Your task to perform on an android device: turn off priority inbox in the gmail app Image 0: 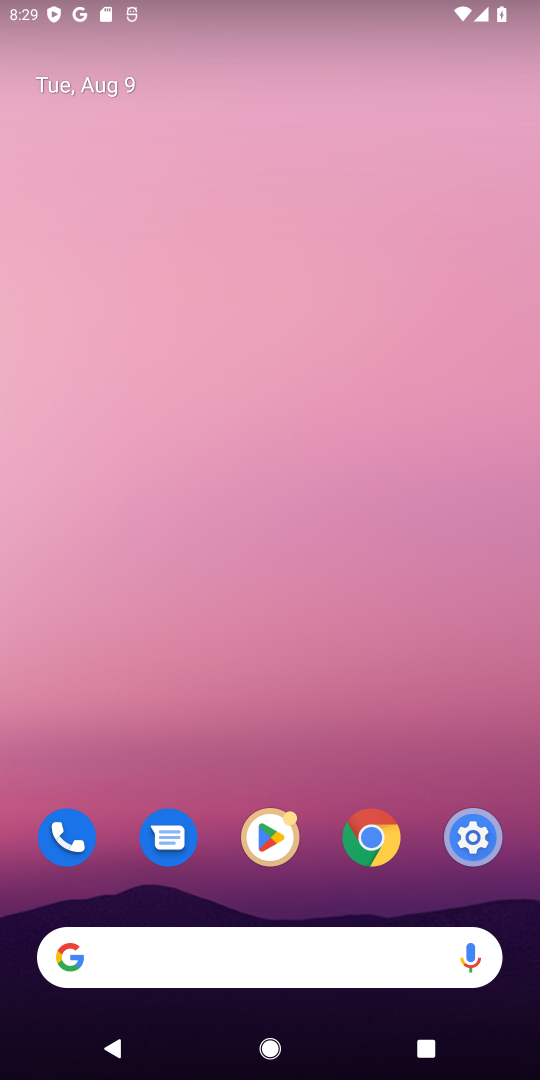
Step 0: drag from (294, 863) to (294, 346)
Your task to perform on an android device: turn off priority inbox in the gmail app Image 1: 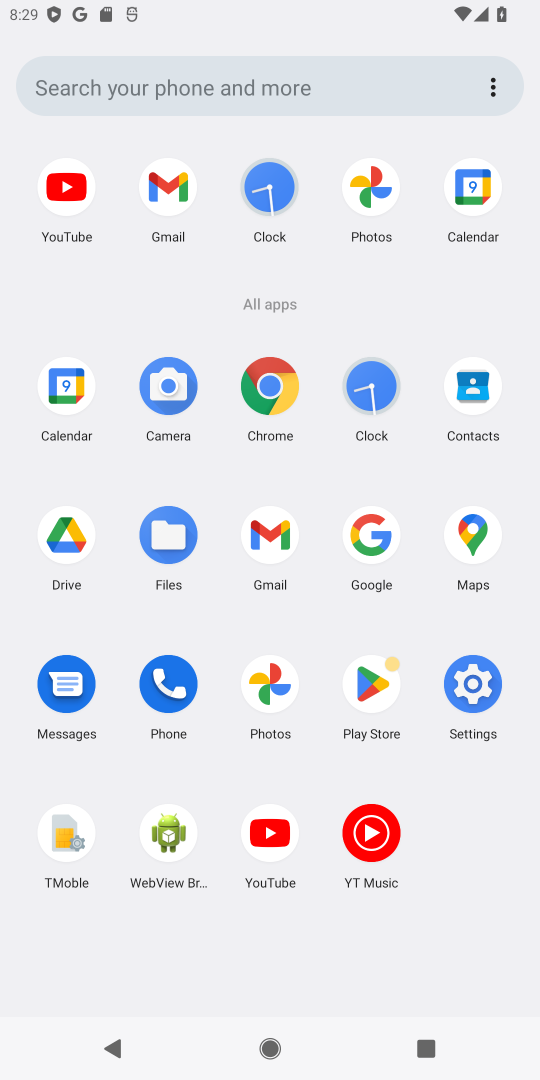
Step 1: click (265, 528)
Your task to perform on an android device: turn off priority inbox in the gmail app Image 2: 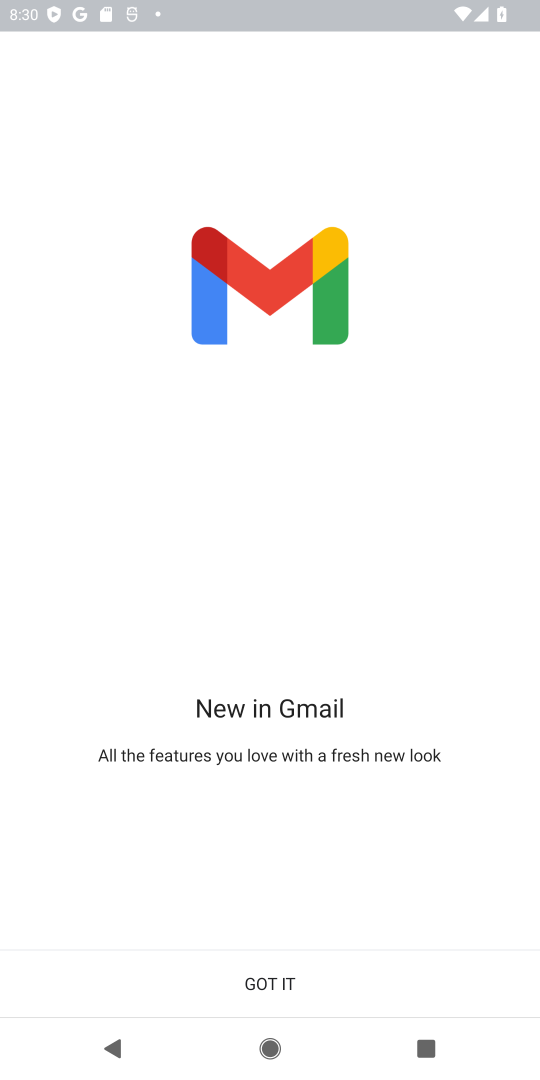
Step 2: click (270, 980)
Your task to perform on an android device: turn off priority inbox in the gmail app Image 3: 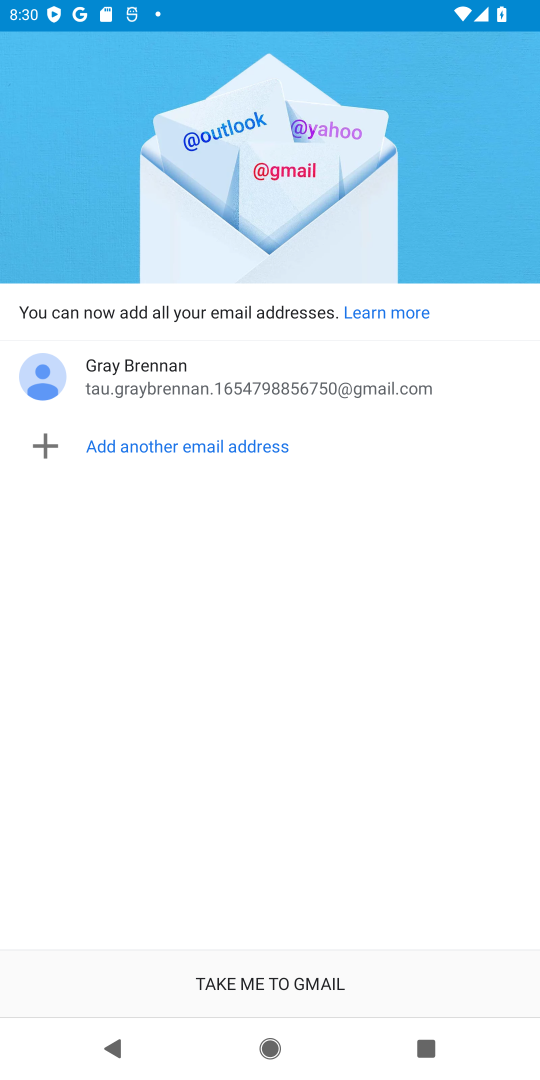
Step 3: click (270, 982)
Your task to perform on an android device: turn off priority inbox in the gmail app Image 4: 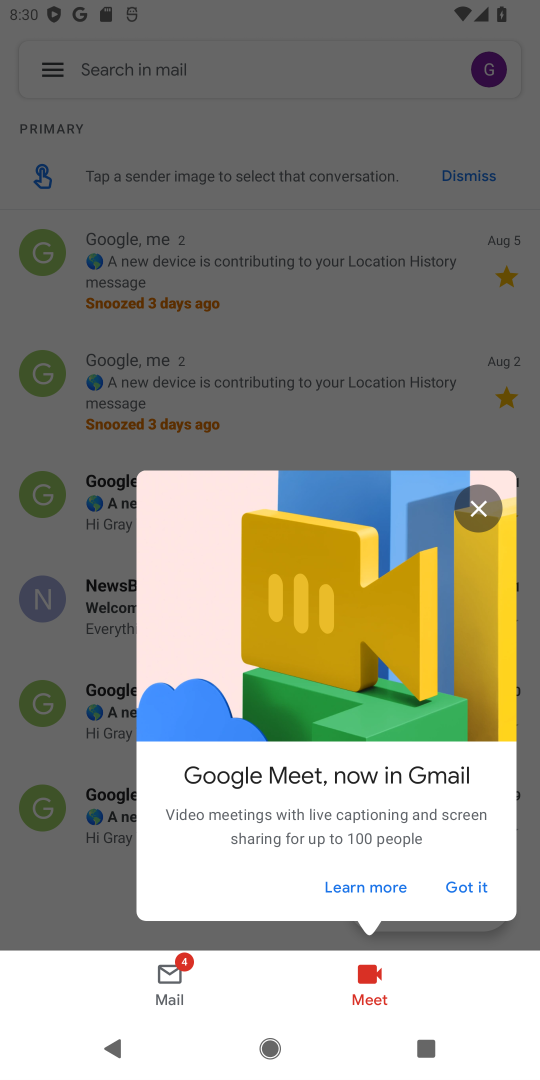
Step 4: click (475, 877)
Your task to perform on an android device: turn off priority inbox in the gmail app Image 5: 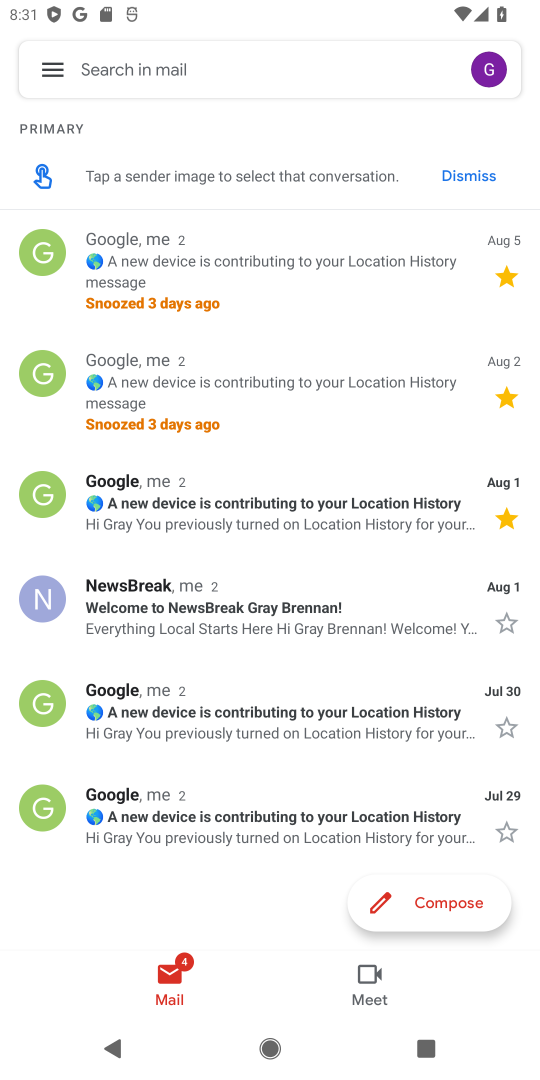
Step 5: click (45, 66)
Your task to perform on an android device: turn off priority inbox in the gmail app Image 6: 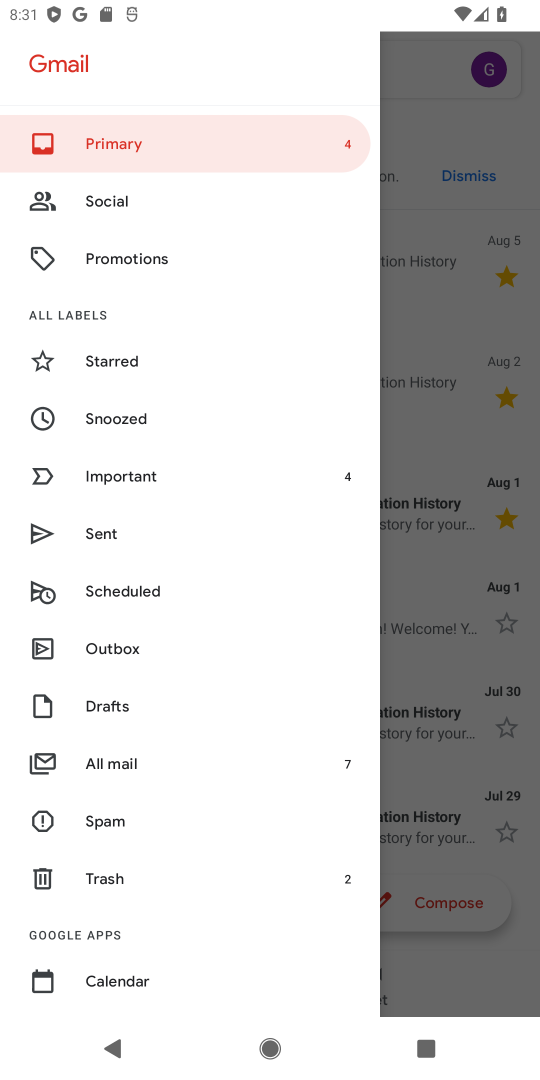
Step 6: drag from (116, 889) to (166, 460)
Your task to perform on an android device: turn off priority inbox in the gmail app Image 7: 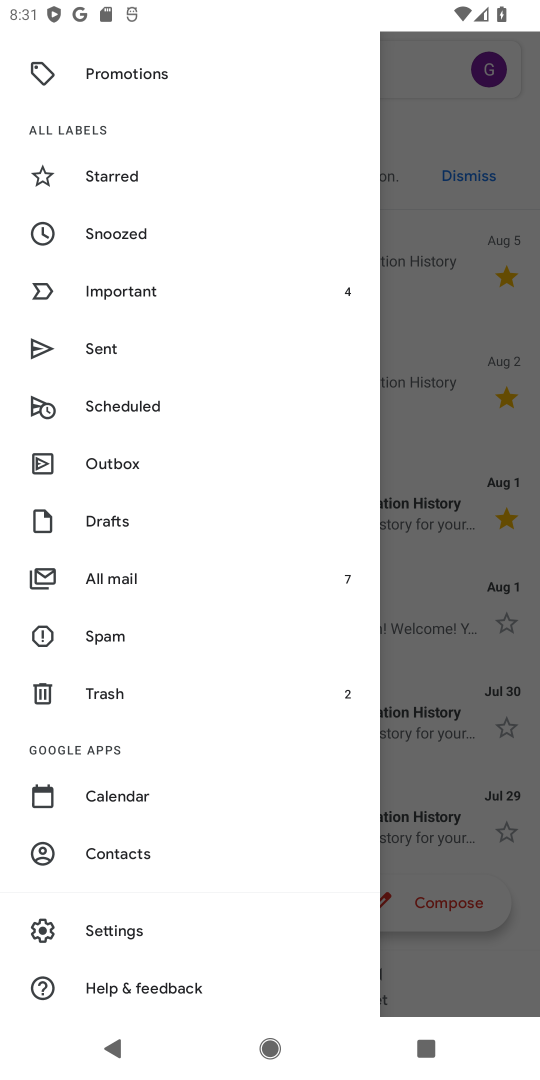
Step 7: click (129, 923)
Your task to perform on an android device: turn off priority inbox in the gmail app Image 8: 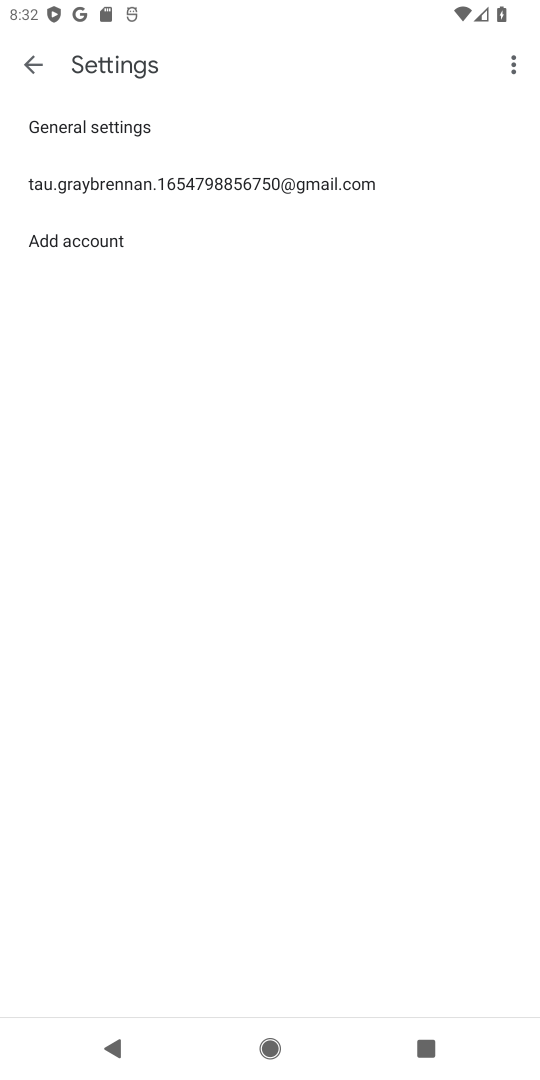
Step 8: click (100, 189)
Your task to perform on an android device: turn off priority inbox in the gmail app Image 9: 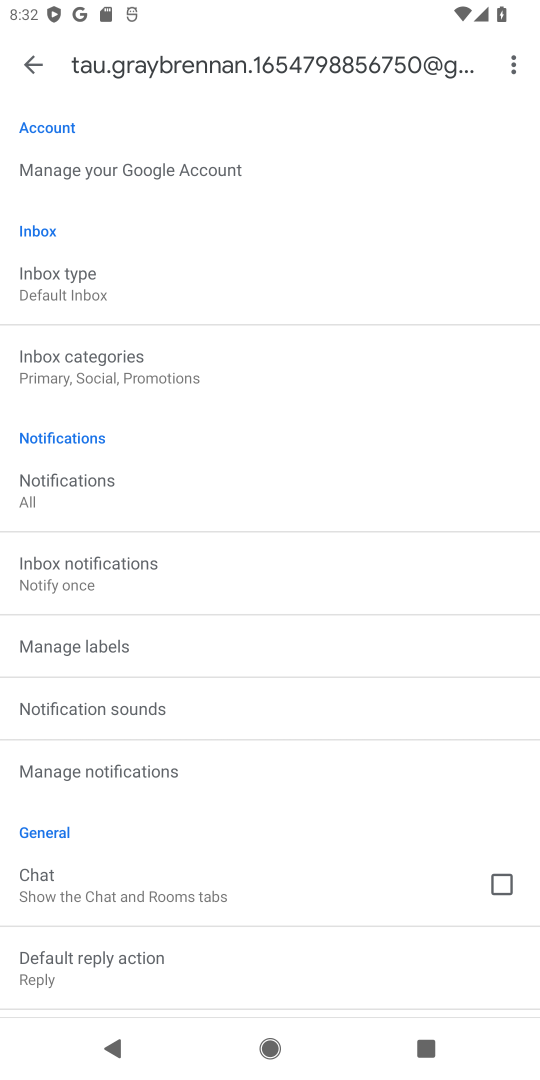
Step 9: task complete